Your task to perform on an android device: View the shopping cart on costco. Image 0: 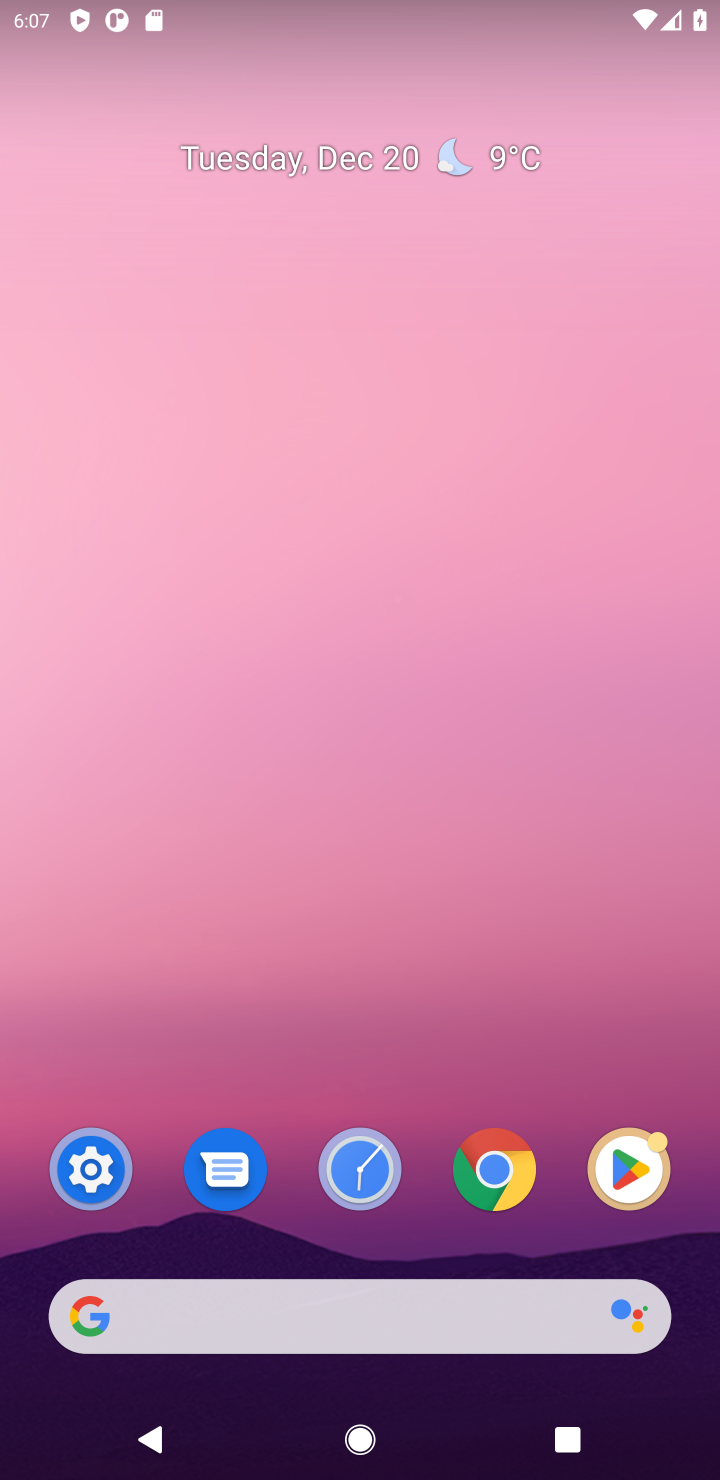
Step 0: click (510, 1170)
Your task to perform on an android device: View the shopping cart on costco. Image 1: 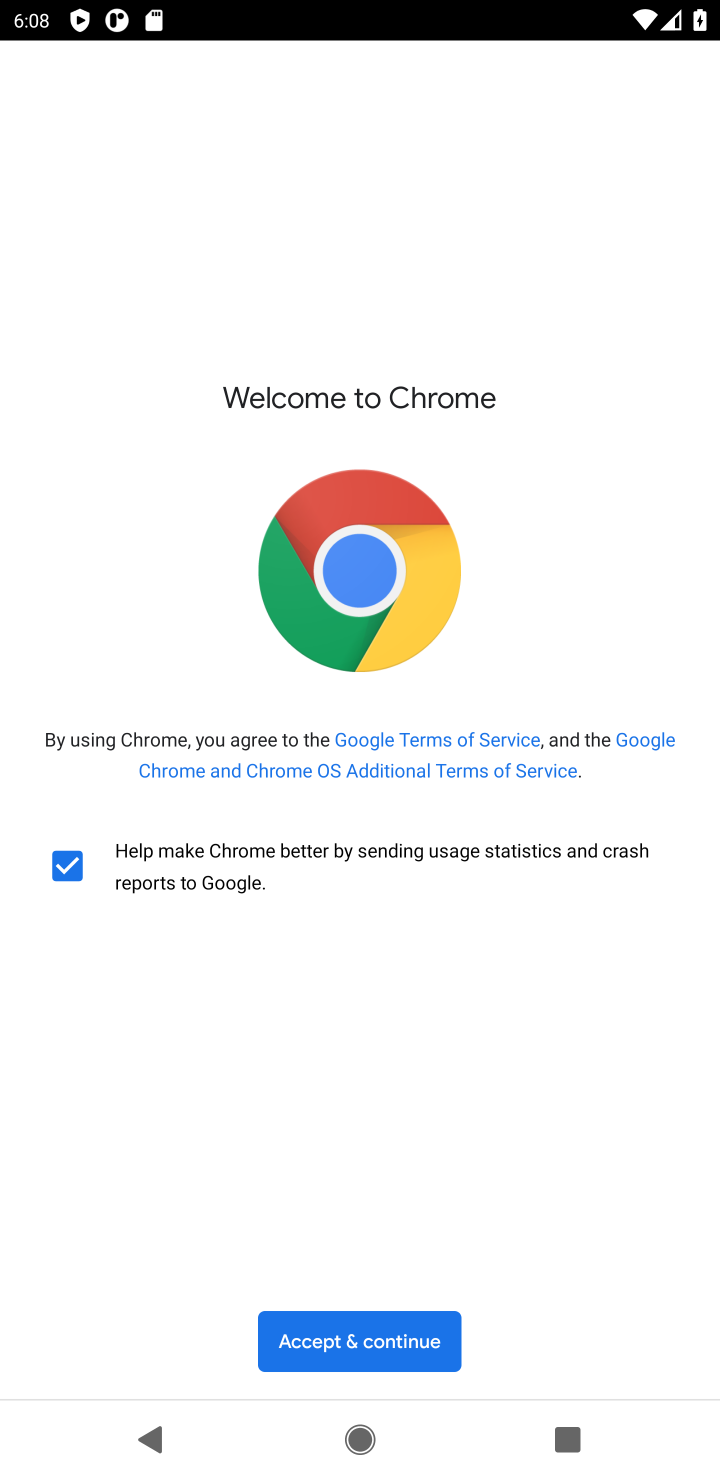
Step 1: click (403, 1346)
Your task to perform on an android device: View the shopping cart on costco. Image 2: 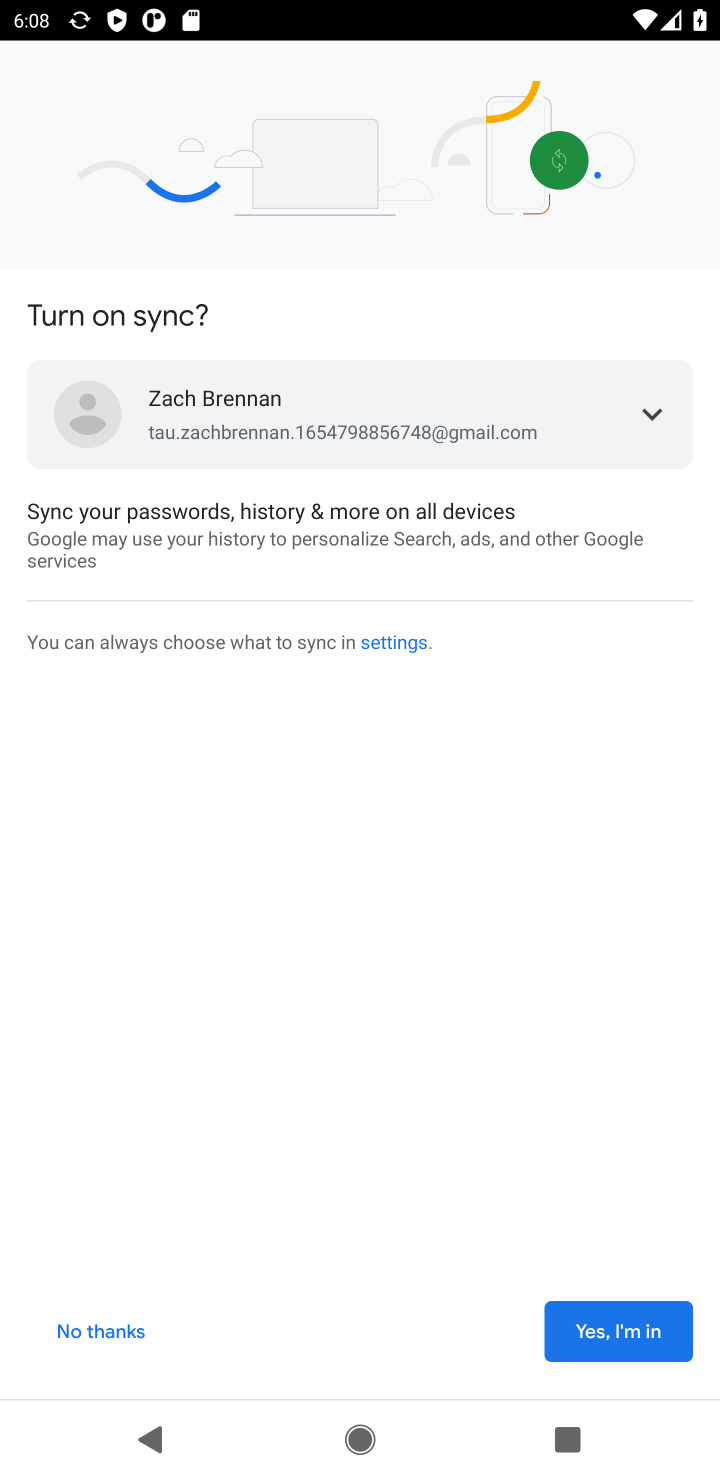
Step 2: click (612, 1328)
Your task to perform on an android device: View the shopping cart on costco. Image 3: 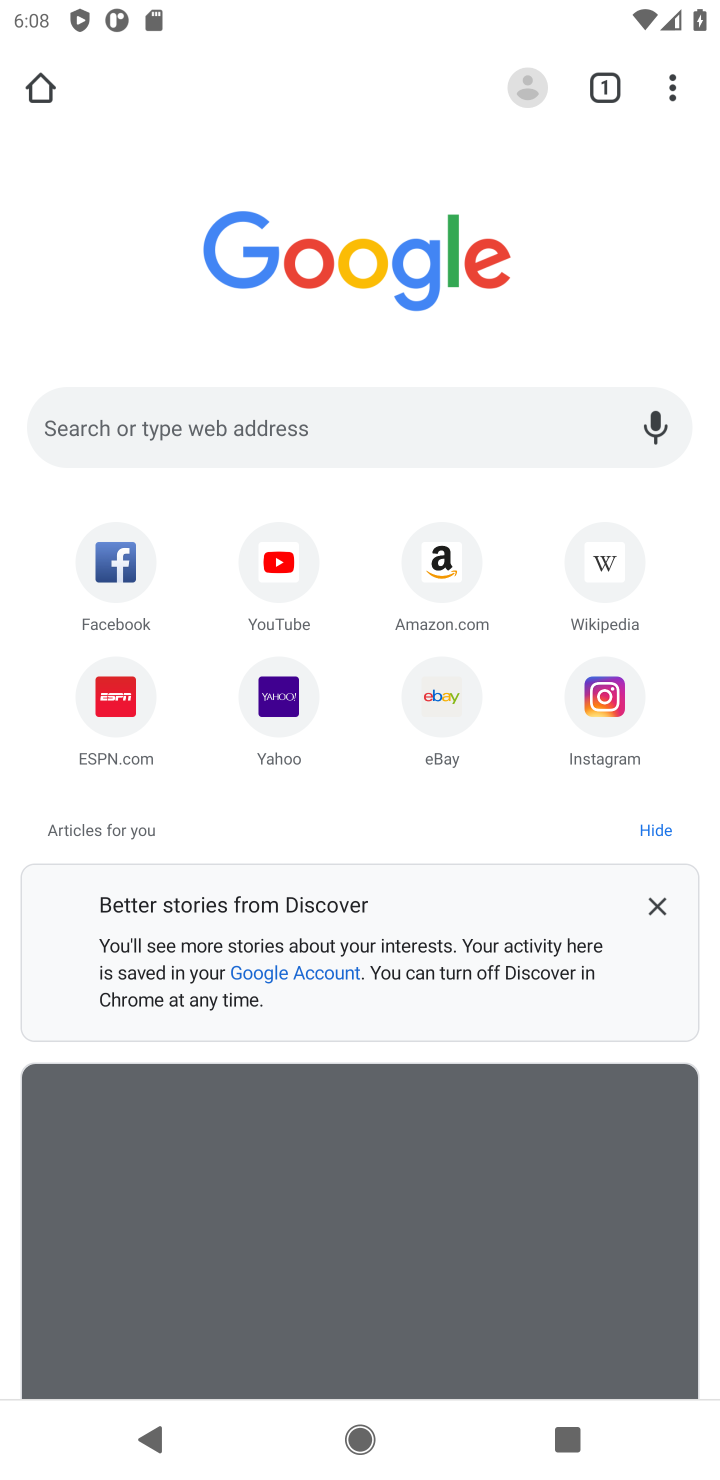
Step 3: click (237, 432)
Your task to perform on an android device: View the shopping cart on costco. Image 4: 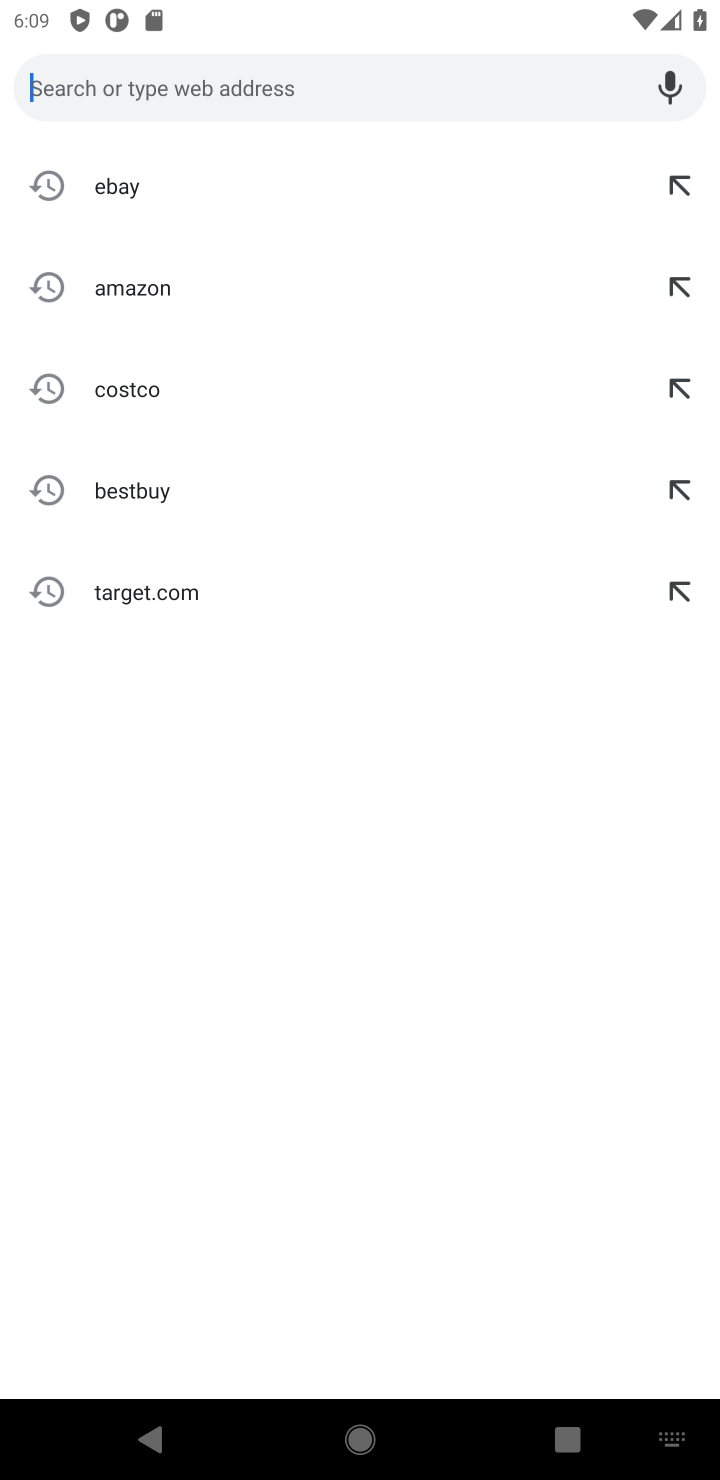
Step 4: type "costco"
Your task to perform on an android device: View the shopping cart on costco. Image 5: 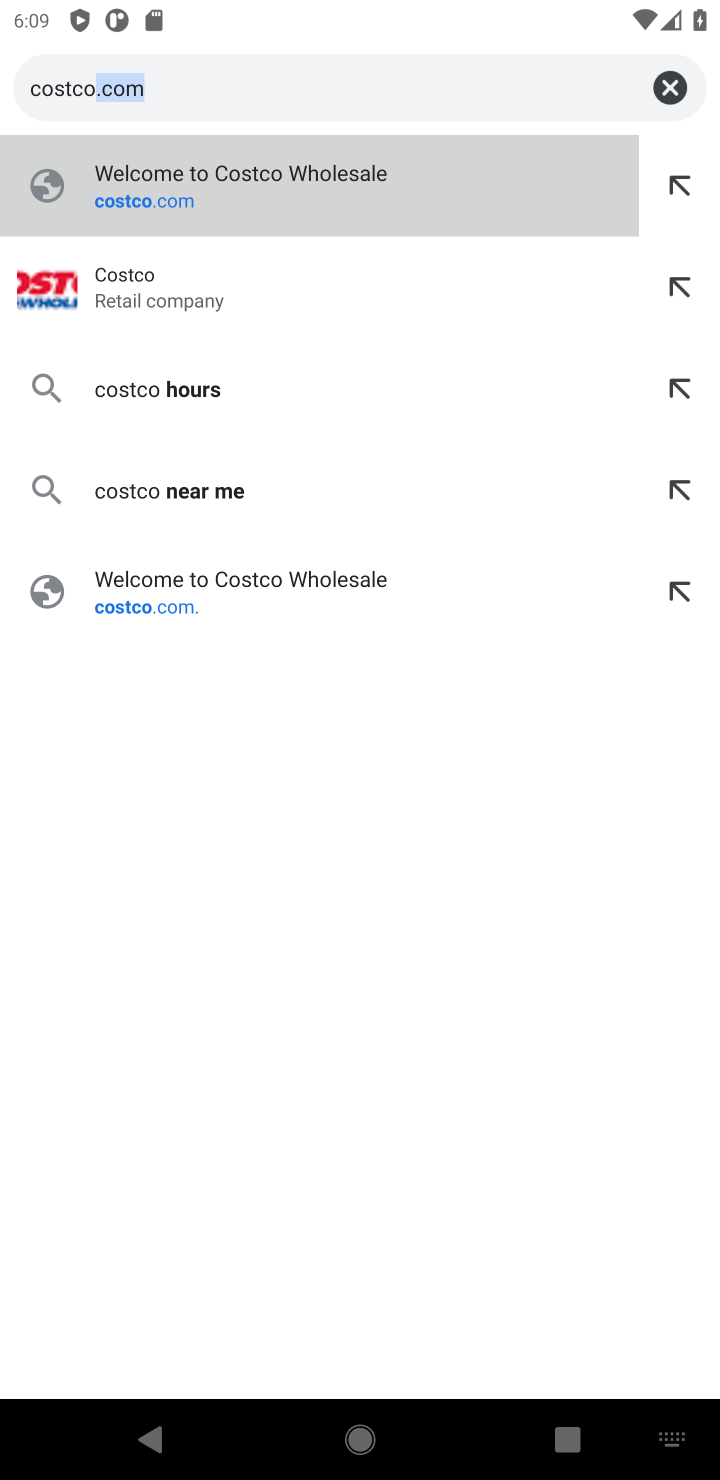
Step 5: click (372, 170)
Your task to perform on an android device: View the shopping cart on costco. Image 6: 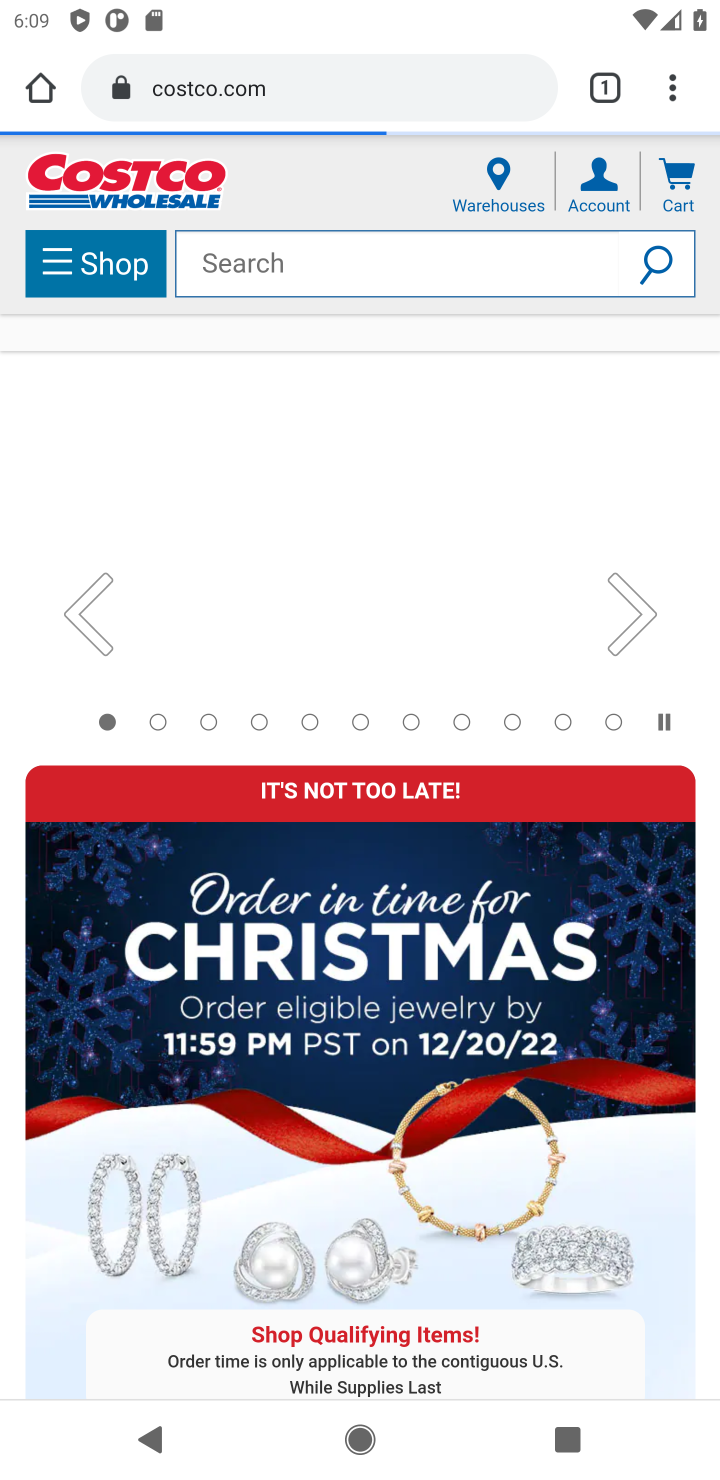
Step 6: click (308, 274)
Your task to perform on an android device: View the shopping cart on costco. Image 7: 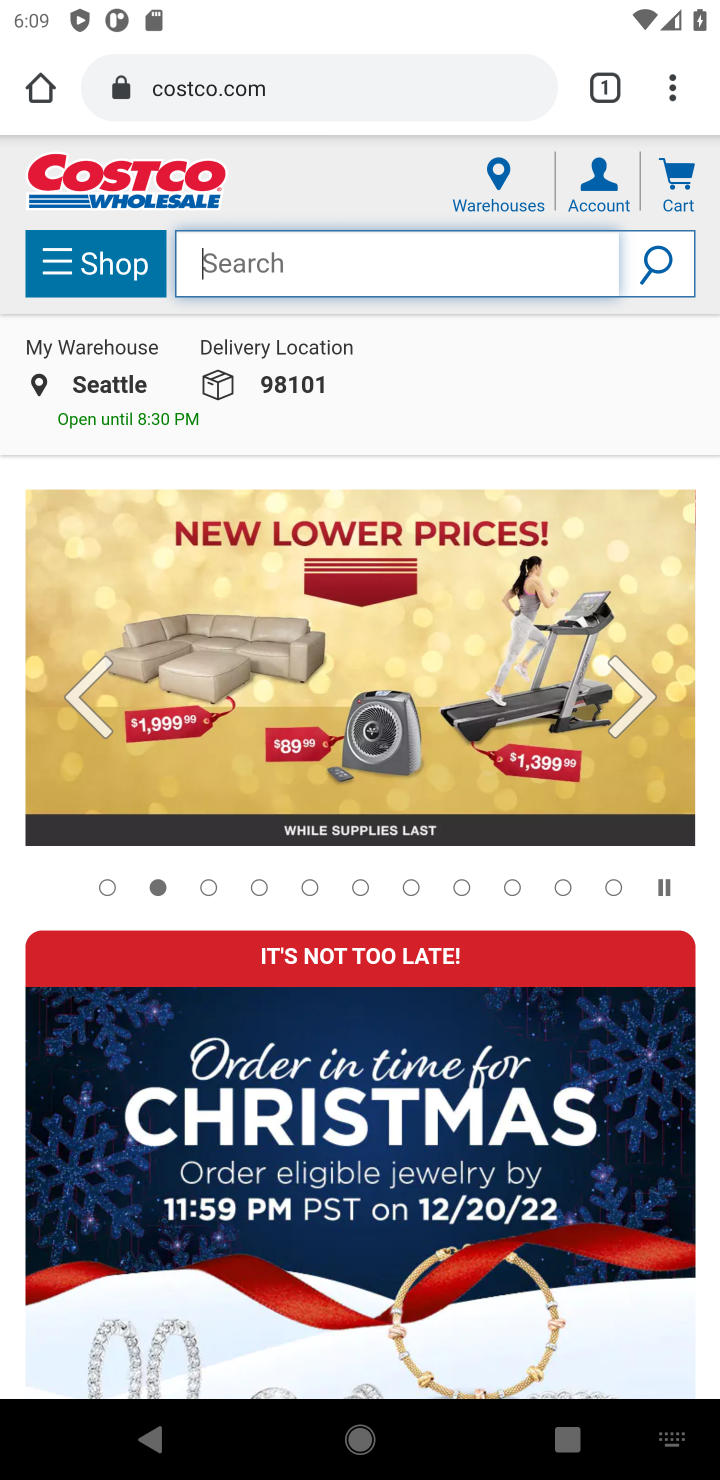
Step 7: click (683, 177)
Your task to perform on an android device: View the shopping cart on costco. Image 8: 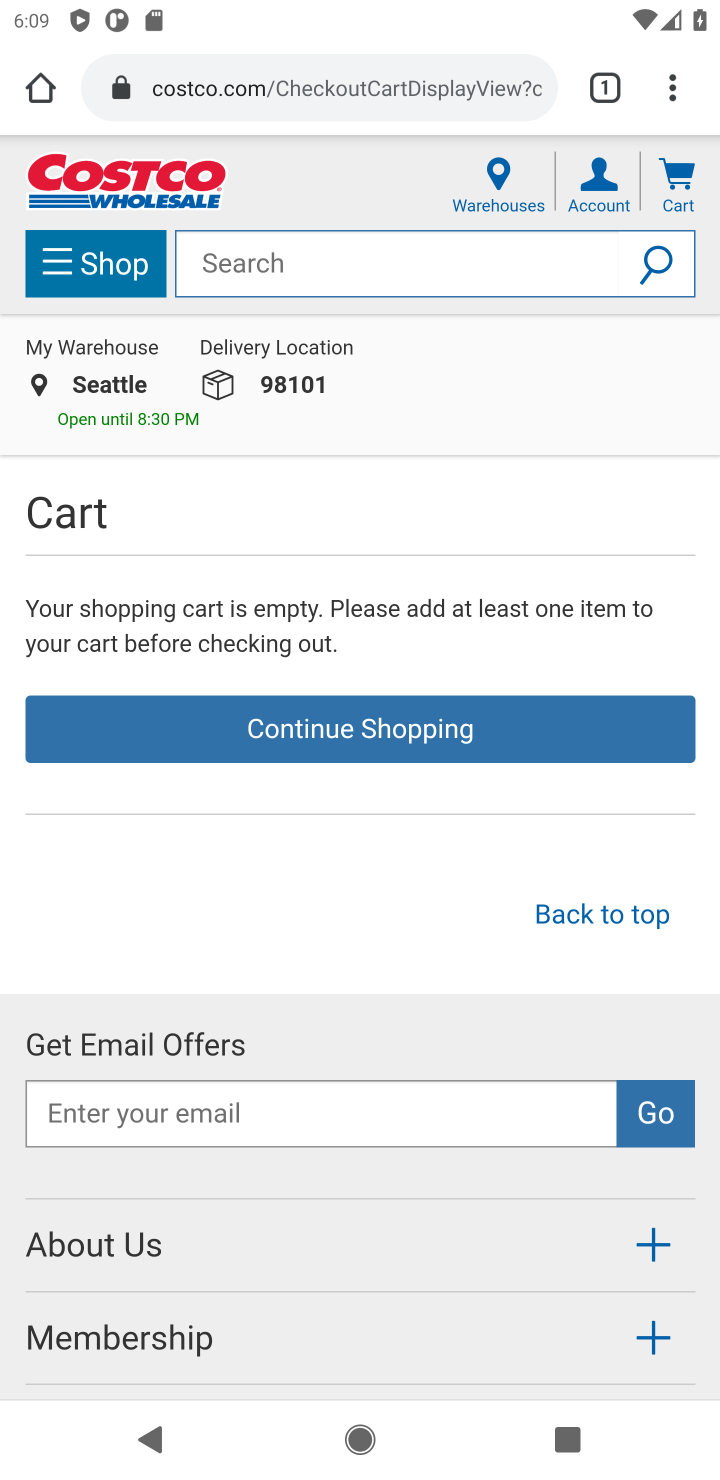
Step 8: task complete